Your task to perform on an android device: turn on bluetooth scan Image 0: 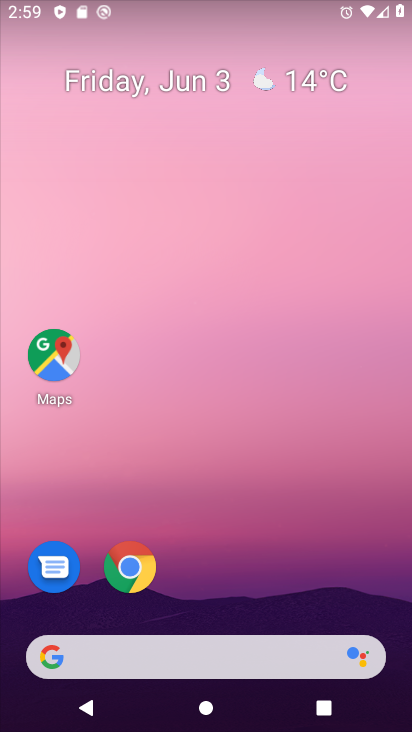
Step 0: drag from (270, 652) to (240, 102)
Your task to perform on an android device: turn on bluetooth scan Image 1: 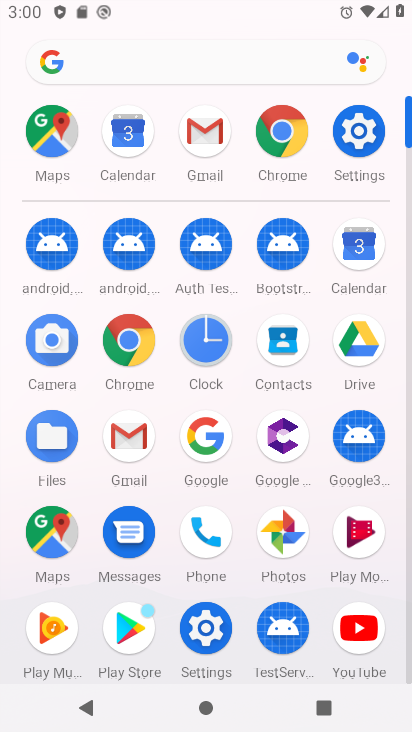
Step 1: click (199, 630)
Your task to perform on an android device: turn on bluetooth scan Image 2: 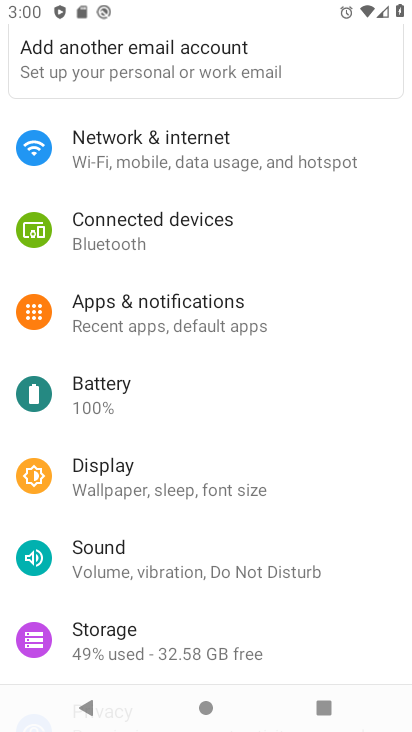
Step 2: drag from (177, 177) to (197, 295)
Your task to perform on an android device: turn on bluetooth scan Image 3: 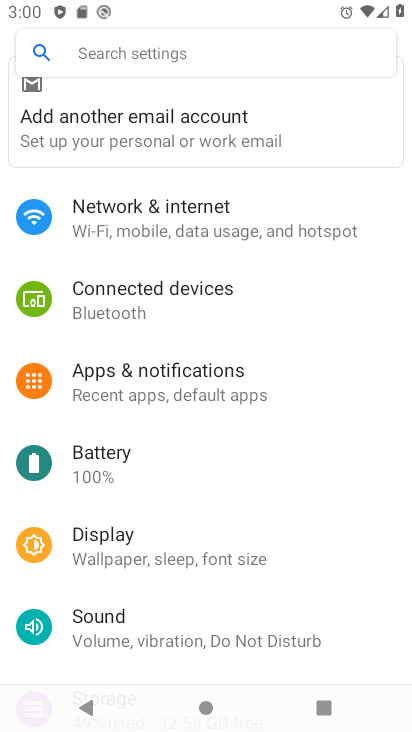
Step 3: click (139, 54)
Your task to perform on an android device: turn on bluetooth scan Image 4: 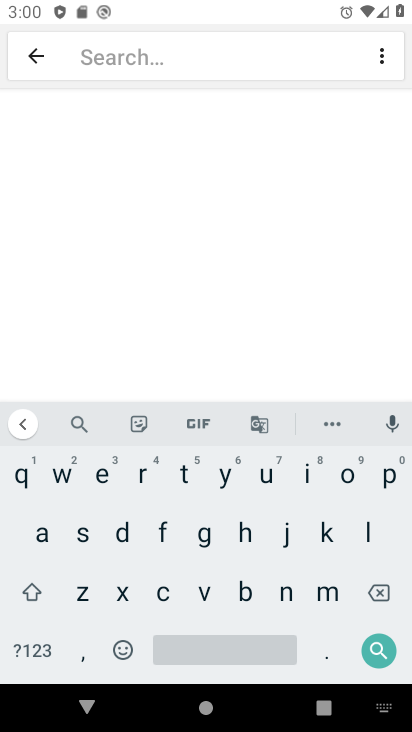
Step 4: click (371, 523)
Your task to perform on an android device: turn on bluetooth scan Image 5: 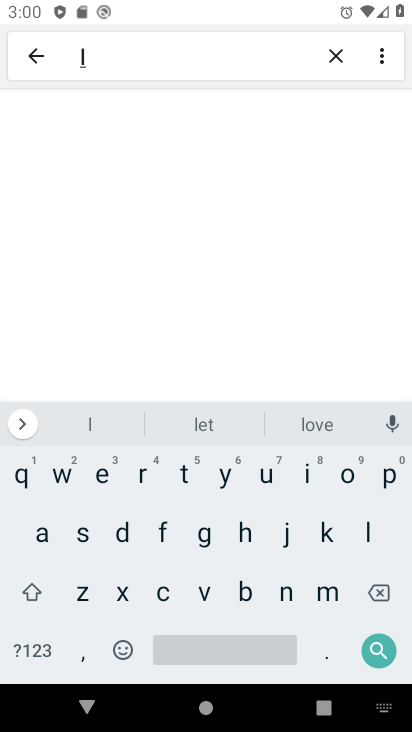
Step 5: click (342, 478)
Your task to perform on an android device: turn on bluetooth scan Image 6: 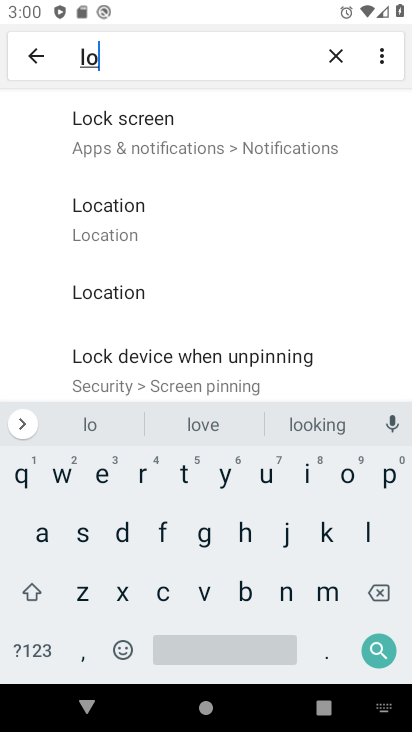
Step 6: click (138, 241)
Your task to perform on an android device: turn on bluetooth scan Image 7: 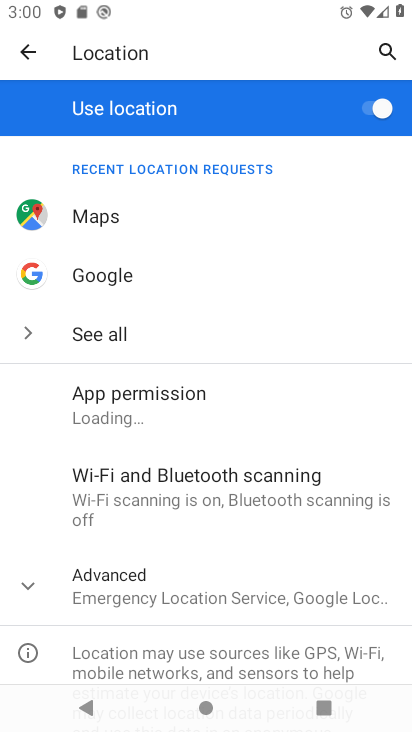
Step 7: drag from (193, 575) to (190, 224)
Your task to perform on an android device: turn on bluetooth scan Image 8: 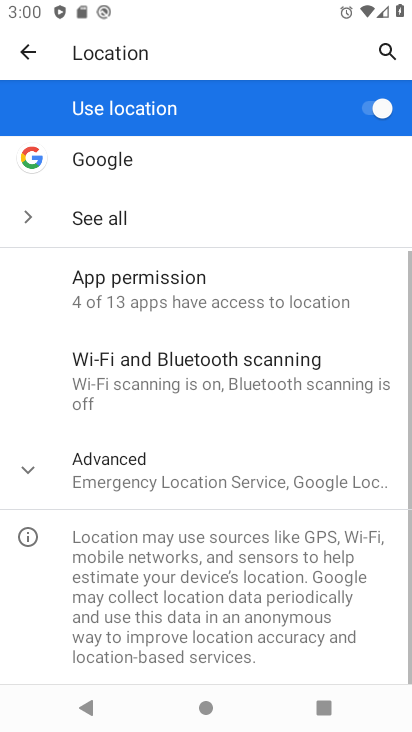
Step 8: click (167, 389)
Your task to perform on an android device: turn on bluetooth scan Image 9: 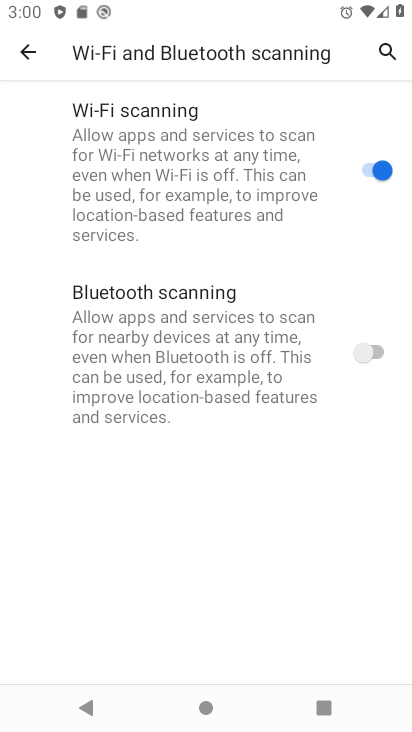
Step 9: click (388, 340)
Your task to perform on an android device: turn on bluetooth scan Image 10: 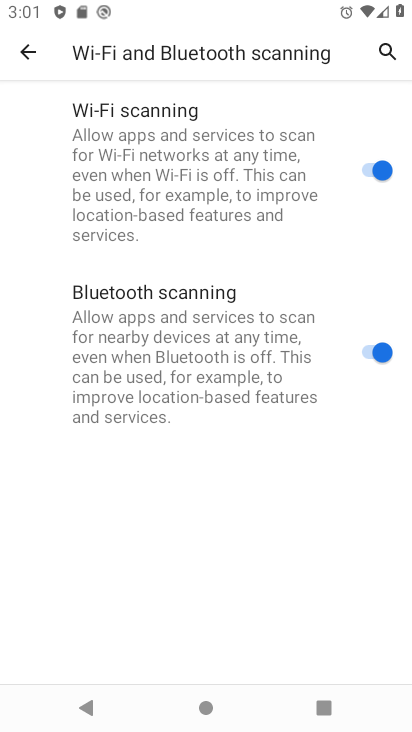
Step 10: task complete